Your task to perform on an android device: Go to Android settings Image 0: 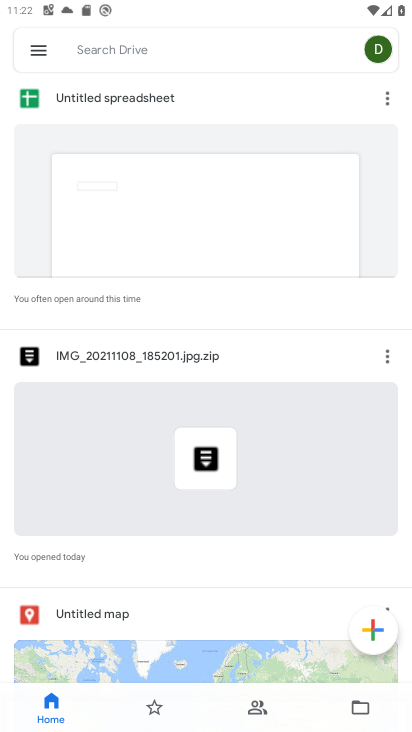
Step 0: press home button
Your task to perform on an android device: Go to Android settings Image 1: 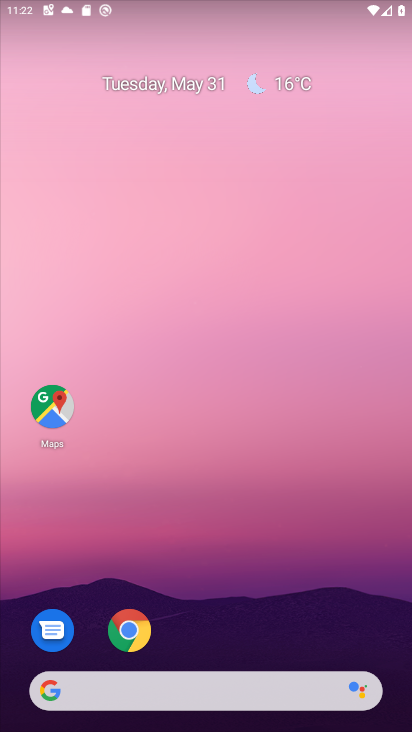
Step 1: drag from (251, 514) to (193, 41)
Your task to perform on an android device: Go to Android settings Image 2: 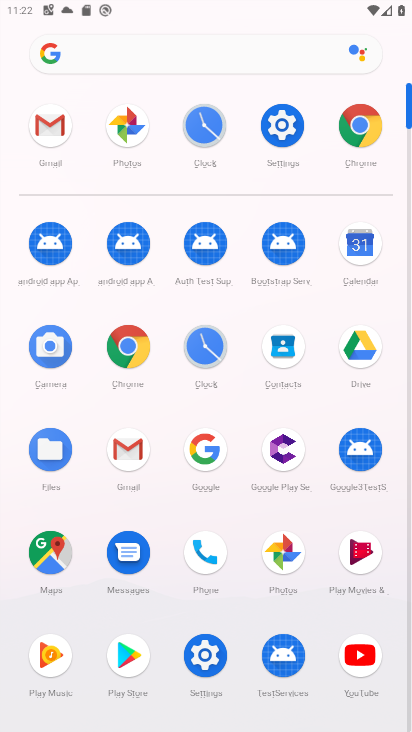
Step 2: click (276, 125)
Your task to perform on an android device: Go to Android settings Image 3: 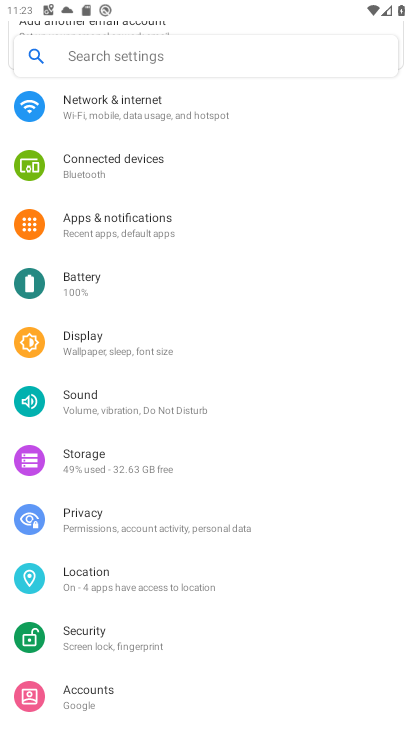
Step 3: task complete